Your task to perform on an android device: change alarm snooze length Image 0: 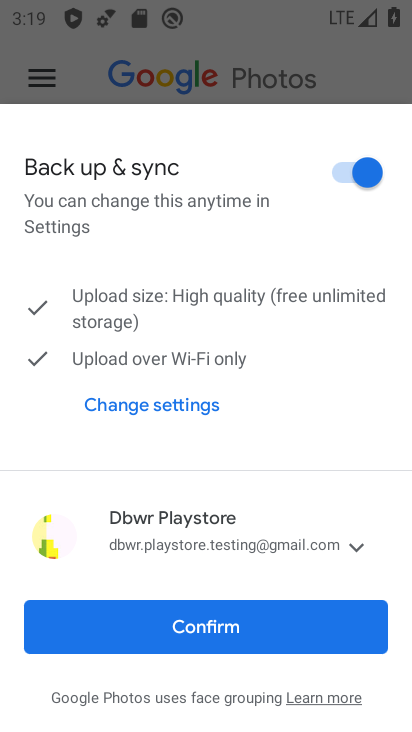
Step 0: press home button
Your task to perform on an android device: change alarm snooze length Image 1: 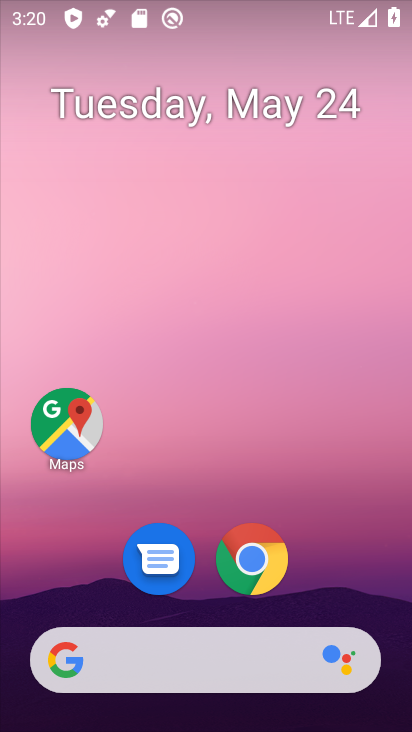
Step 1: drag from (339, 585) to (240, 63)
Your task to perform on an android device: change alarm snooze length Image 2: 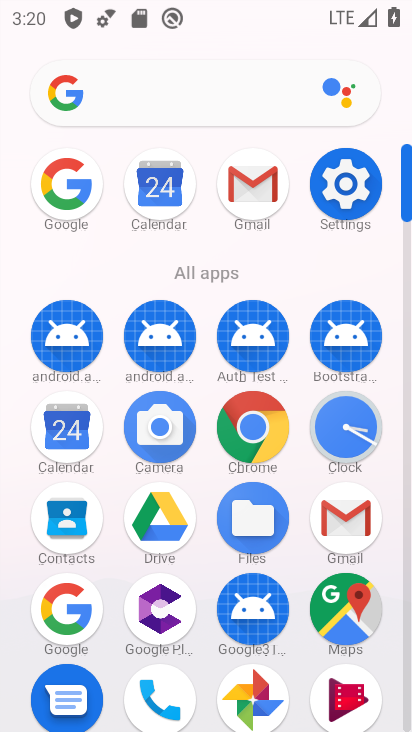
Step 2: click (346, 429)
Your task to perform on an android device: change alarm snooze length Image 3: 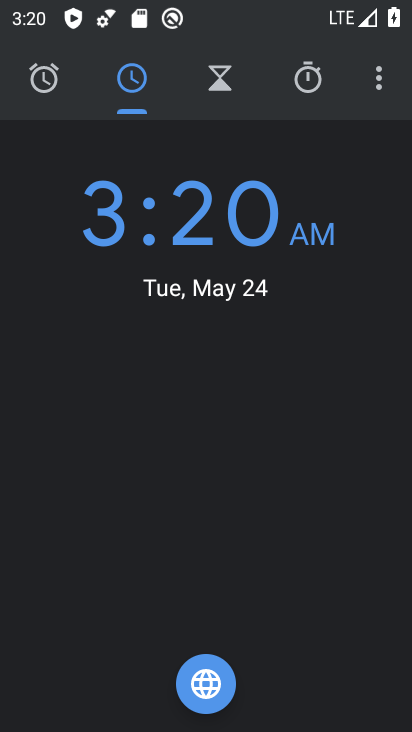
Step 3: click (381, 83)
Your task to perform on an android device: change alarm snooze length Image 4: 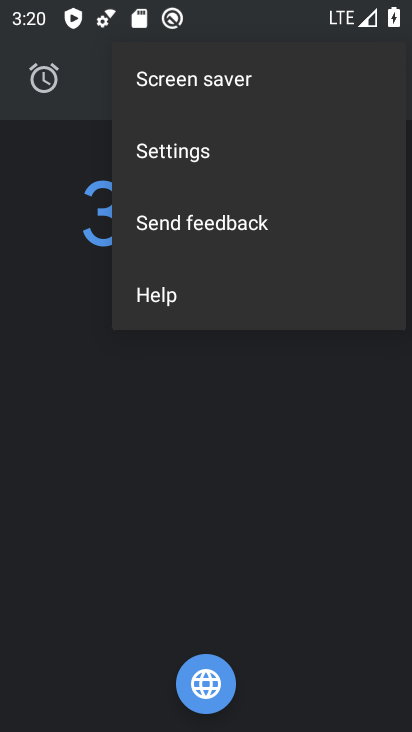
Step 4: click (199, 163)
Your task to perform on an android device: change alarm snooze length Image 5: 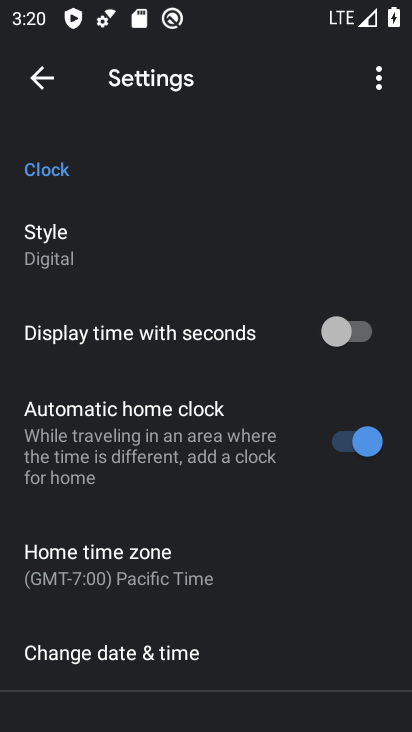
Step 5: drag from (225, 636) to (248, 423)
Your task to perform on an android device: change alarm snooze length Image 6: 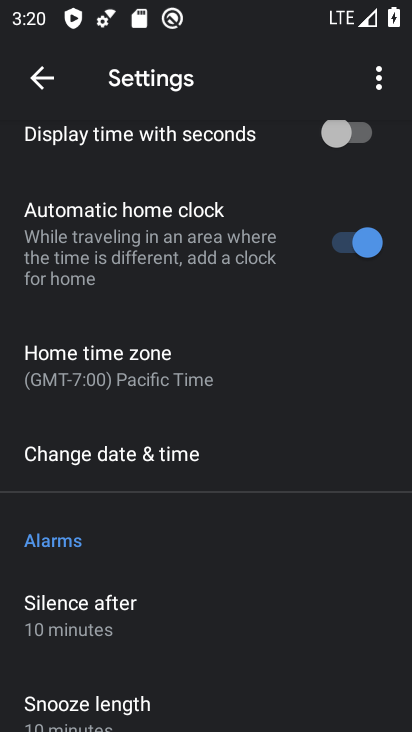
Step 6: drag from (206, 633) to (262, 484)
Your task to perform on an android device: change alarm snooze length Image 7: 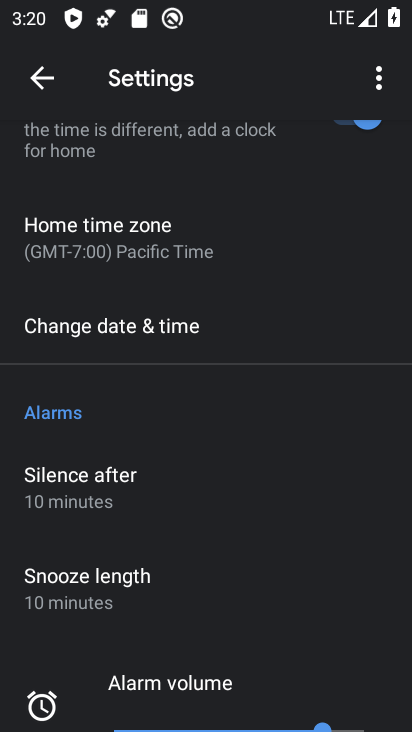
Step 7: click (106, 594)
Your task to perform on an android device: change alarm snooze length Image 8: 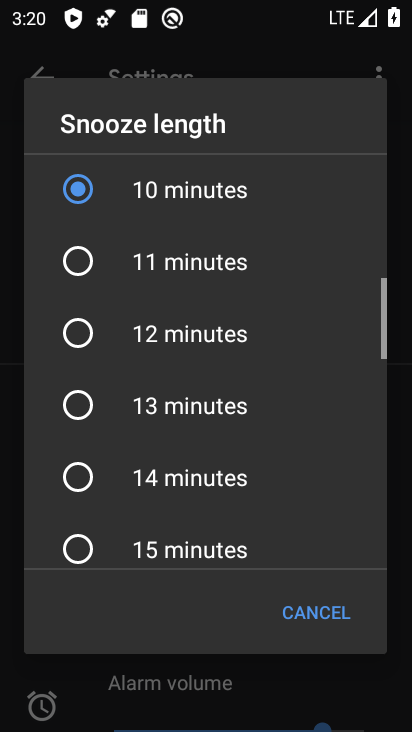
Step 8: drag from (216, 519) to (303, 379)
Your task to perform on an android device: change alarm snooze length Image 9: 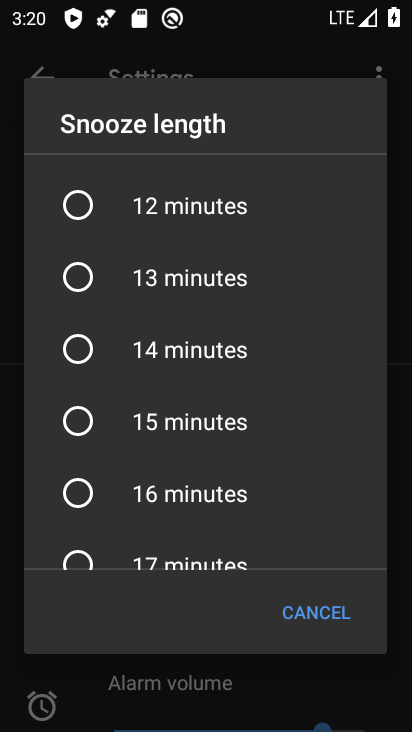
Step 9: drag from (162, 528) to (231, 365)
Your task to perform on an android device: change alarm snooze length Image 10: 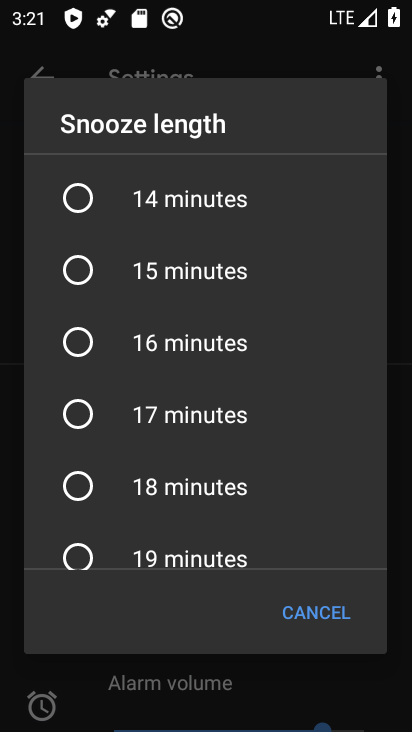
Step 10: click (81, 483)
Your task to perform on an android device: change alarm snooze length Image 11: 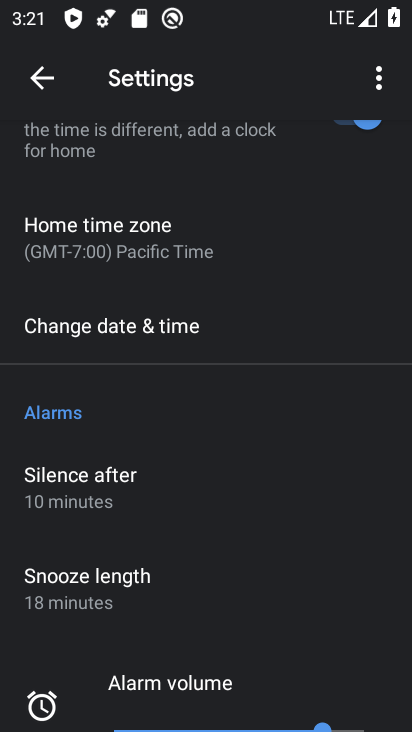
Step 11: task complete